Your task to perform on an android device: turn on the 24-hour format for clock Image 0: 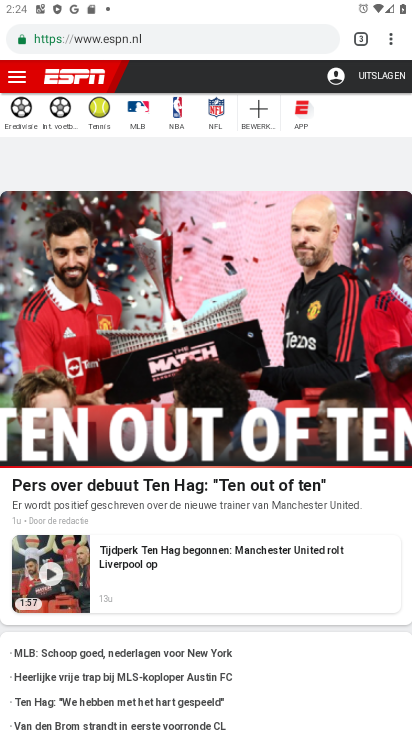
Step 0: press home button
Your task to perform on an android device: turn on the 24-hour format for clock Image 1: 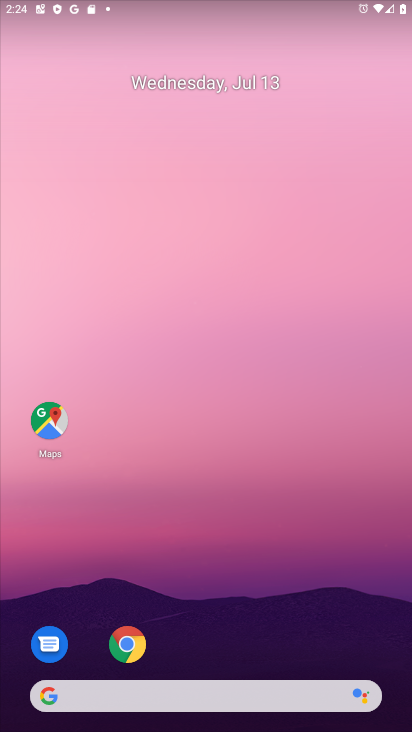
Step 1: drag from (184, 679) to (171, 108)
Your task to perform on an android device: turn on the 24-hour format for clock Image 2: 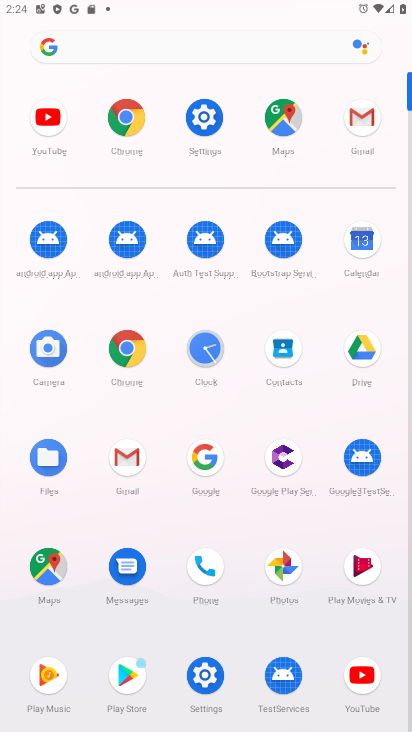
Step 2: click (205, 353)
Your task to perform on an android device: turn on the 24-hour format for clock Image 3: 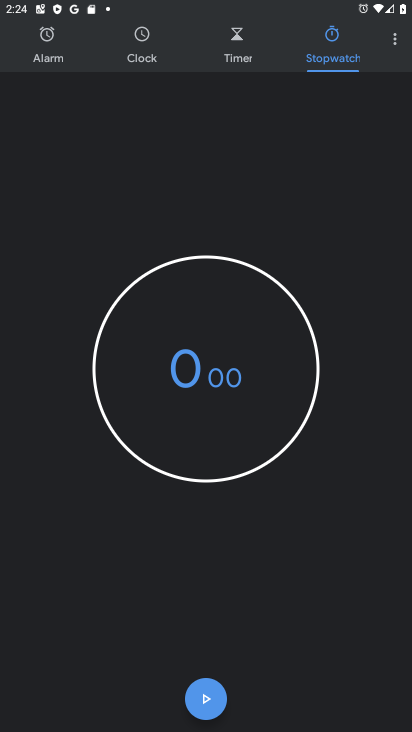
Step 3: click (400, 38)
Your task to perform on an android device: turn on the 24-hour format for clock Image 4: 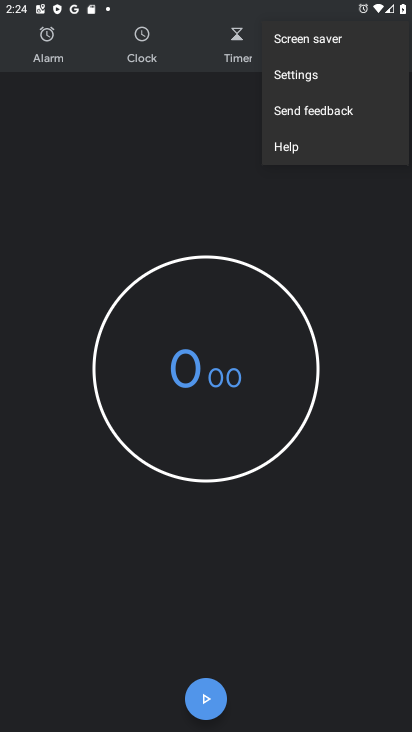
Step 4: click (278, 78)
Your task to perform on an android device: turn on the 24-hour format for clock Image 5: 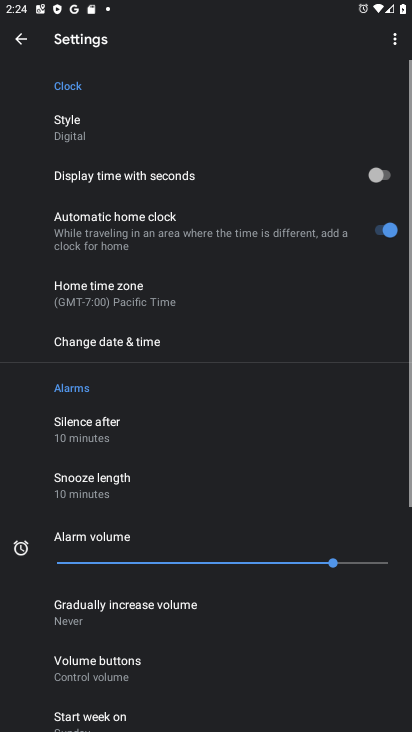
Step 5: click (133, 335)
Your task to perform on an android device: turn on the 24-hour format for clock Image 6: 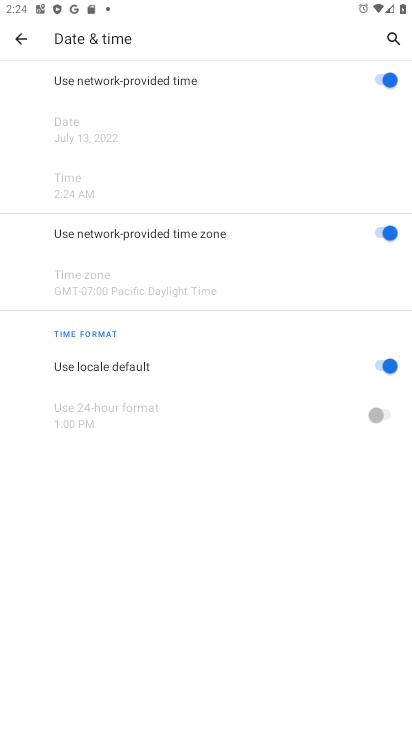
Step 6: click (382, 367)
Your task to perform on an android device: turn on the 24-hour format for clock Image 7: 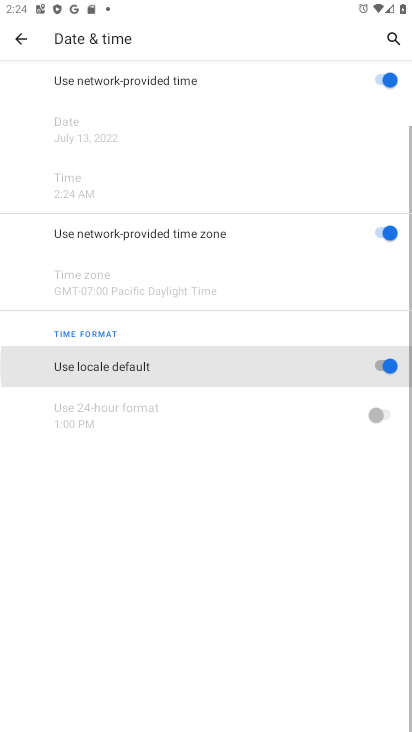
Step 7: click (388, 425)
Your task to perform on an android device: turn on the 24-hour format for clock Image 8: 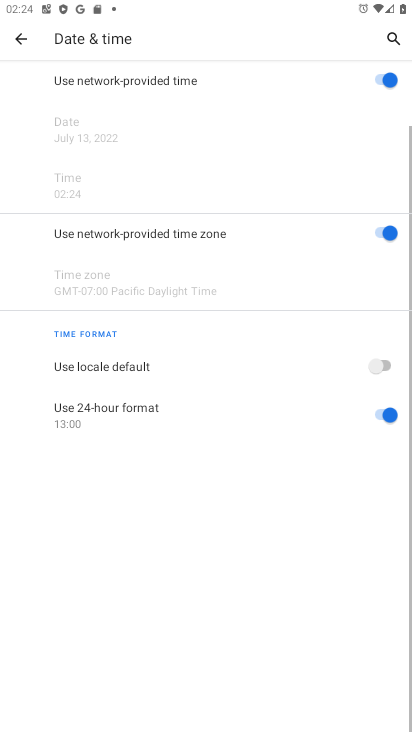
Step 8: task complete